Your task to perform on an android device: Go to Amazon Image 0: 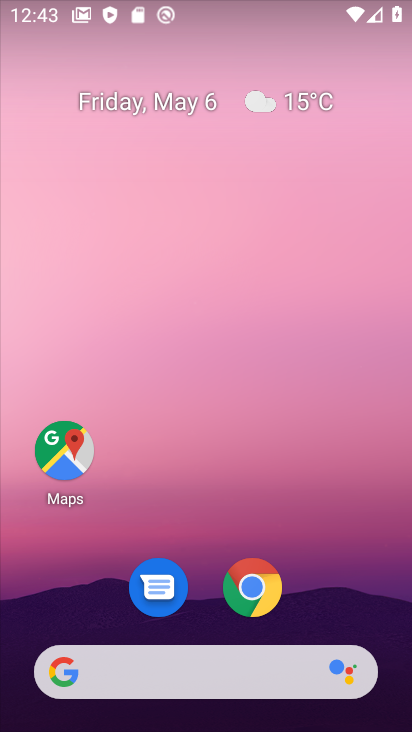
Step 0: click (280, 605)
Your task to perform on an android device: Go to Amazon Image 1: 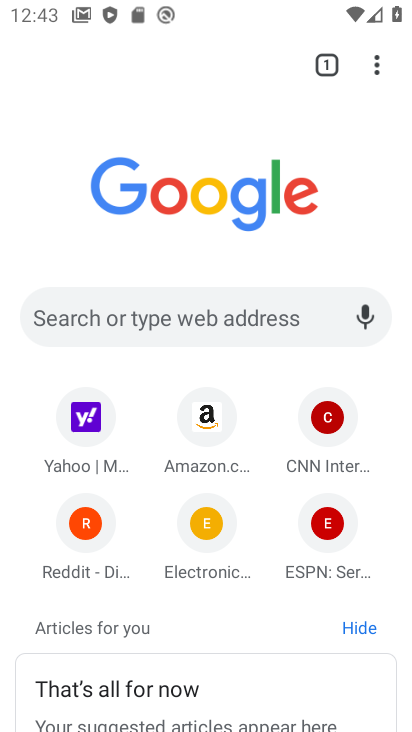
Step 1: click (332, 428)
Your task to perform on an android device: Go to Amazon Image 2: 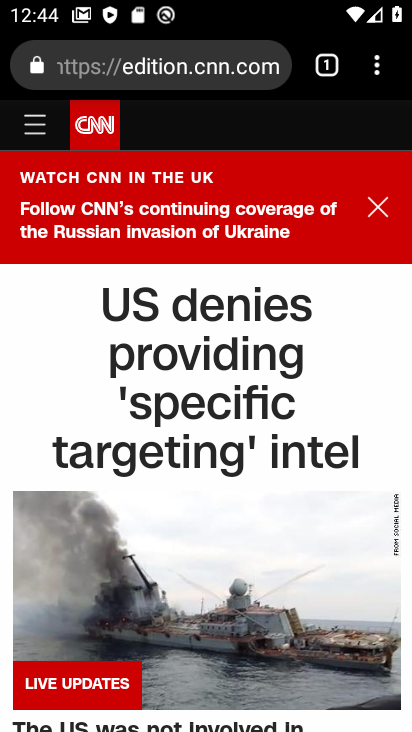
Step 2: press back button
Your task to perform on an android device: Go to Amazon Image 3: 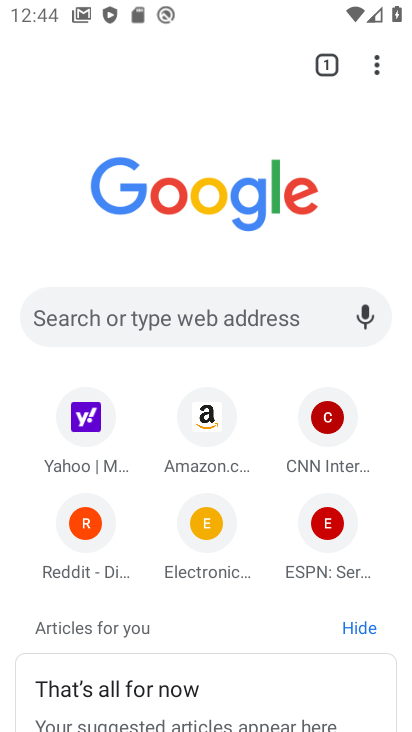
Step 3: click (210, 422)
Your task to perform on an android device: Go to Amazon Image 4: 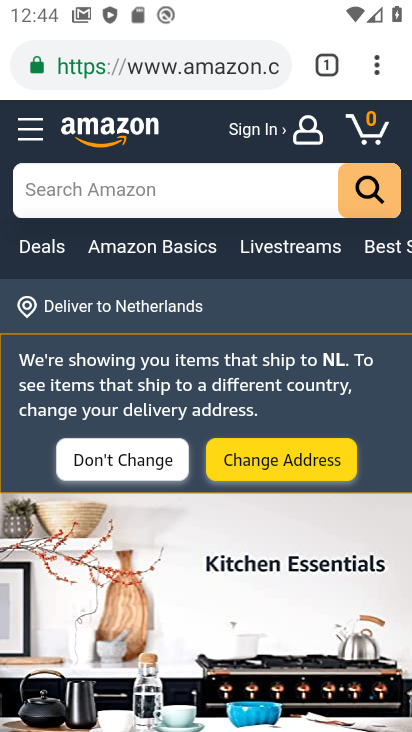
Step 4: task complete